Your task to perform on an android device: read, delete, or share a saved page in the chrome app Image 0: 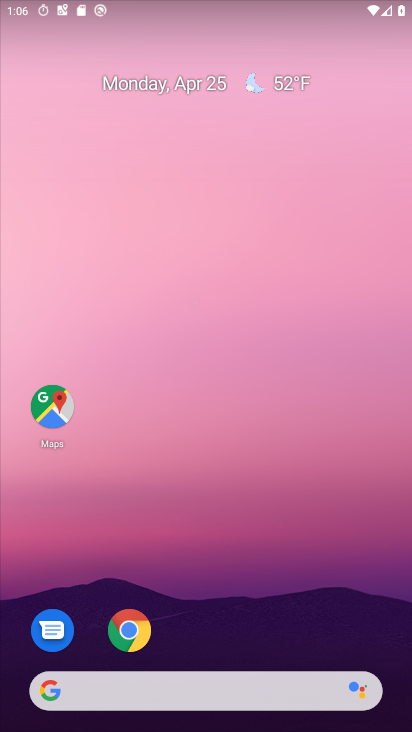
Step 0: drag from (224, 46) to (39, 531)
Your task to perform on an android device: read, delete, or share a saved page in the chrome app Image 1: 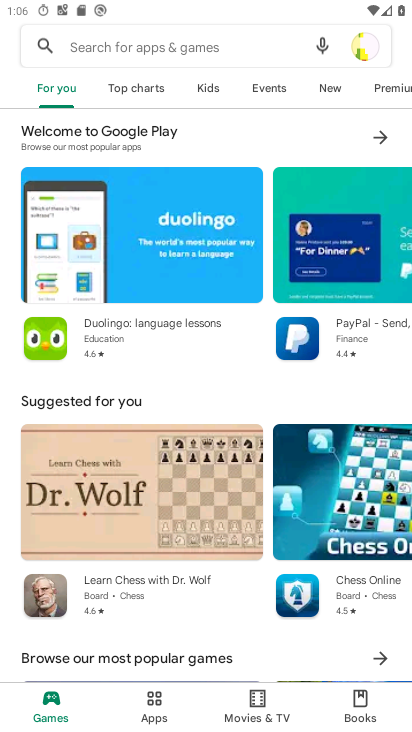
Step 1: drag from (266, 642) to (239, 184)
Your task to perform on an android device: read, delete, or share a saved page in the chrome app Image 2: 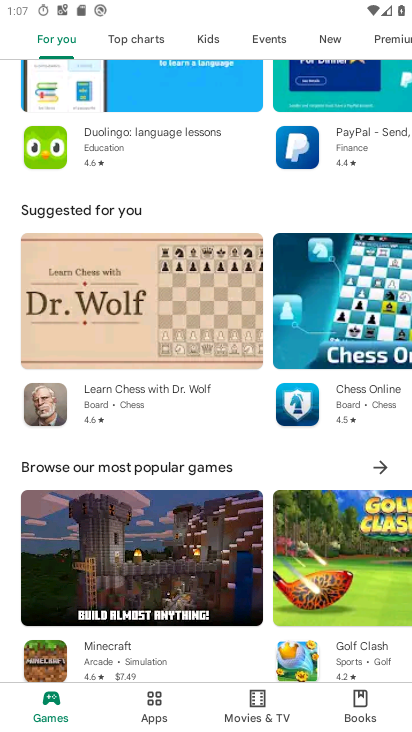
Step 2: drag from (192, 585) to (250, 218)
Your task to perform on an android device: read, delete, or share a saved page in the chrome app Image 3: 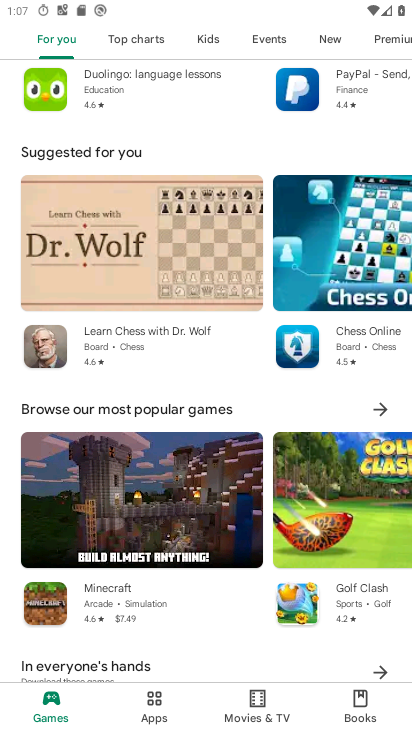
Step 3: click (216, 262)
Your task to perform on an android device: read, delete, or share a saved page in the chrome app Image 4: 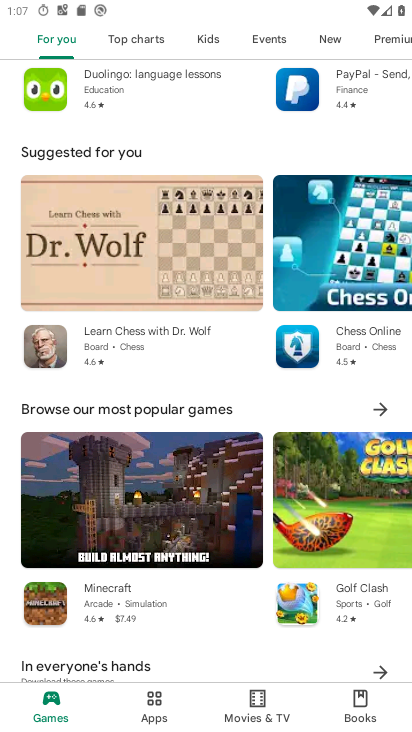
Step 4: drag from (240, 181) to (272, 590)
Your task to perform on an android device: read, delete, or share a saved page in the chrome app Image 5: 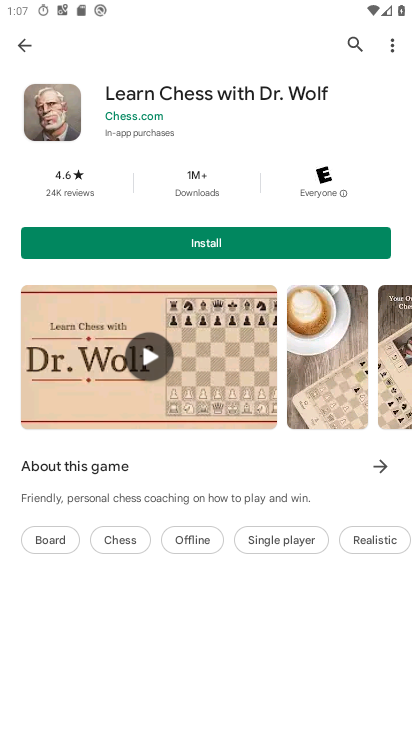
Step 5: click (199, 634)
Your task to perform on an android device: read, delete, or share a saved page in the chrome app Image 6: 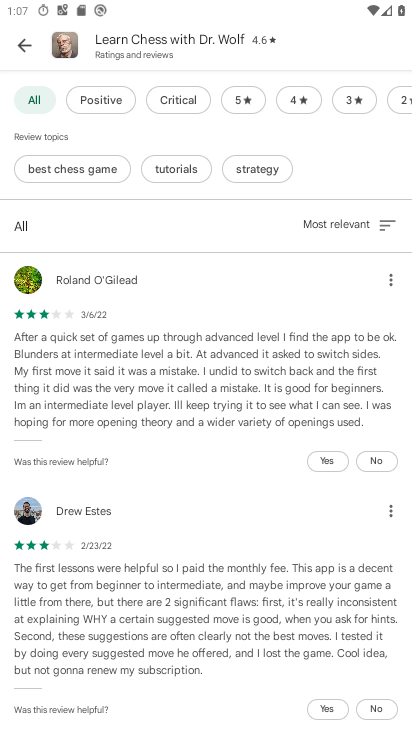
Step 6: drag from (169, 273) to (411, 720)
Your task to perform on an android device: read, delete, or share a saved page in the chrome app Image 7: 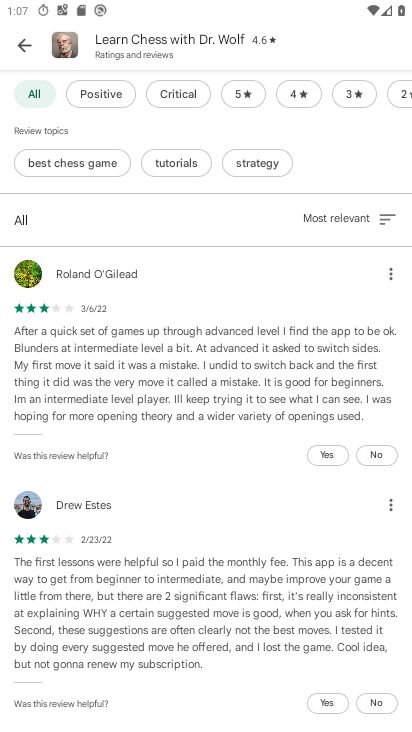
Step 7: press home button
Your task to perform on an android device: read, delete, or share a saved page in the chrome app Image 8: 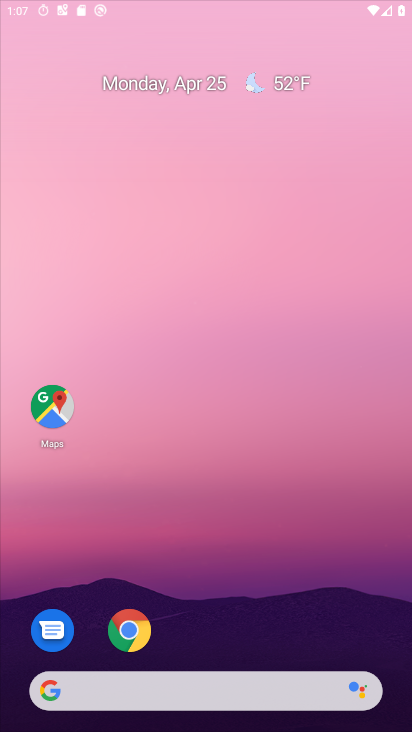
Step 8: drag from (131, 517) to (201, 112)
Your task to perform on an android device: read, delete, or share a saved page in the chrome app Image 9: 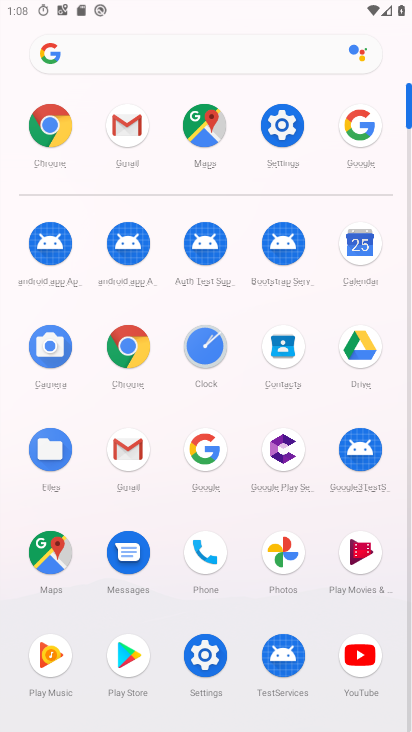
Step 9: click (134, 348)
Your task to perform on an android device: read, delete, or share a saved page in the chrome app Image 10: 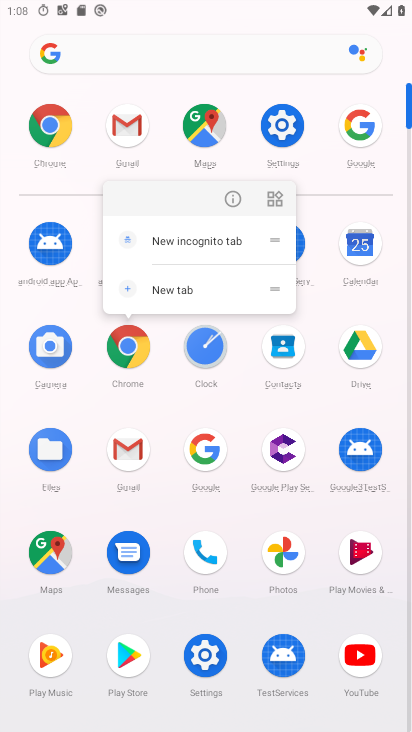
Step 10: click (220, 194)
Your task to perform on an android device: read, delete, or share a saved page in the chrome app Image 11: 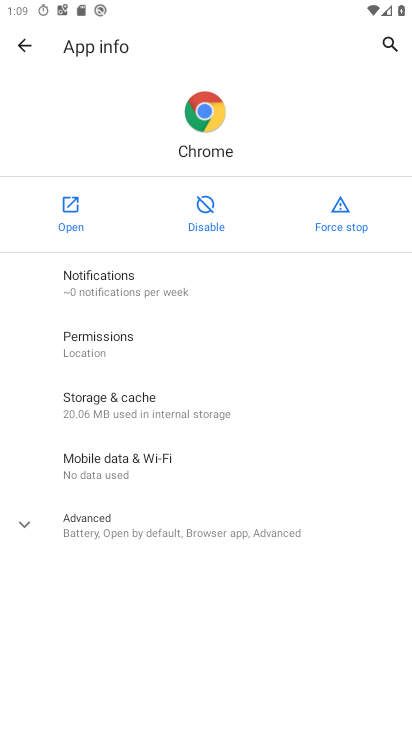
Step 11: click (77, 226)
Your task to perform on an android device: read, delete, or share a saved page in the chrome app Image 12: 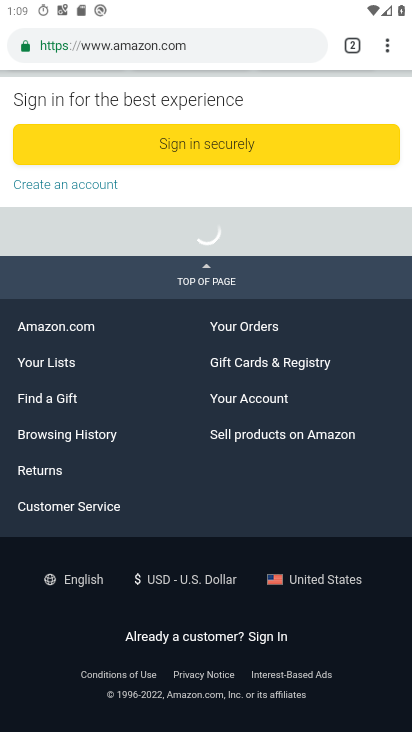
Step 12: task complete